Your task to perform on an android device: Open Yahoo.com Image 0: 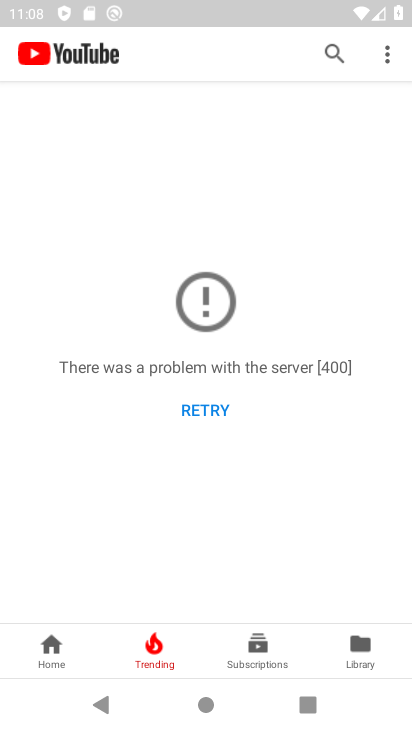
Step 0: press home button
Your task to perform on an android device: Open Yahoo.com Image 1: 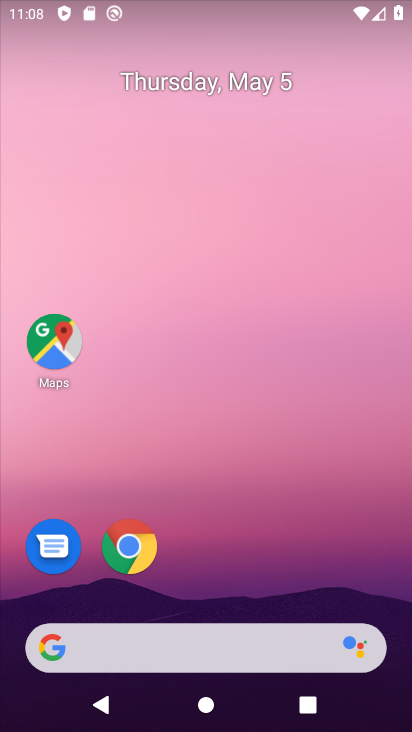
Step 1: click (130, 543)
Your task to perform on an android device: Open Yahoo.com Image 2: 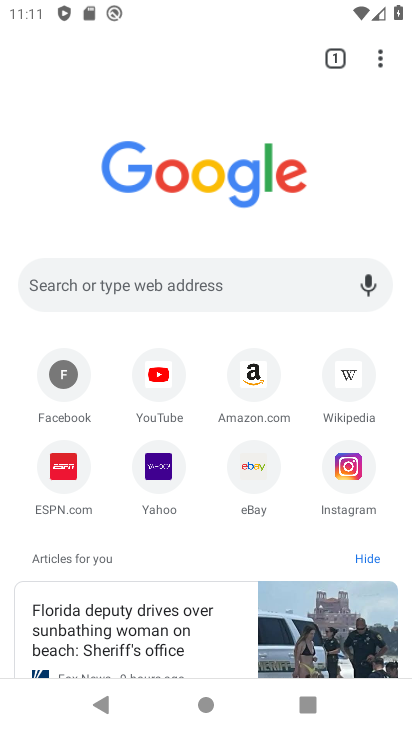
Step 2: click (163, 474)
Your task to perform on an android device: Open Yahoo.com Image 3: 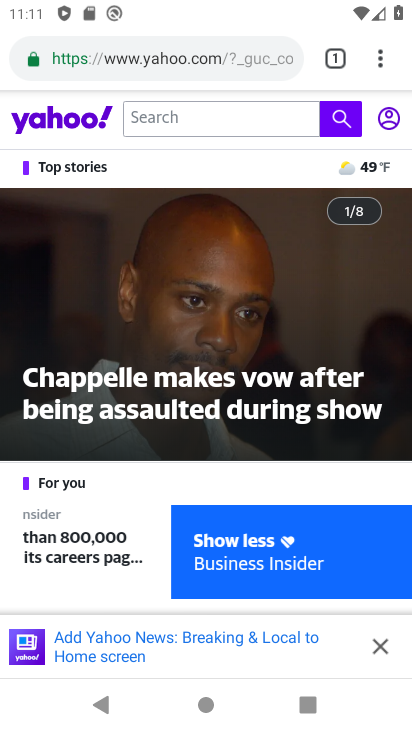
Step 3: task complete